Your task to perform on an android device: What's the weather? Image 0: 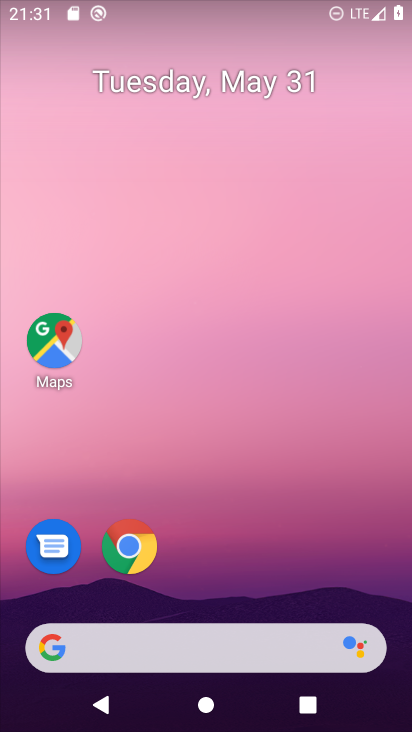
Step 0: drag from (0, 248) to (393, 262)
Your task to perform on an android device: What's the weather? Image 1: 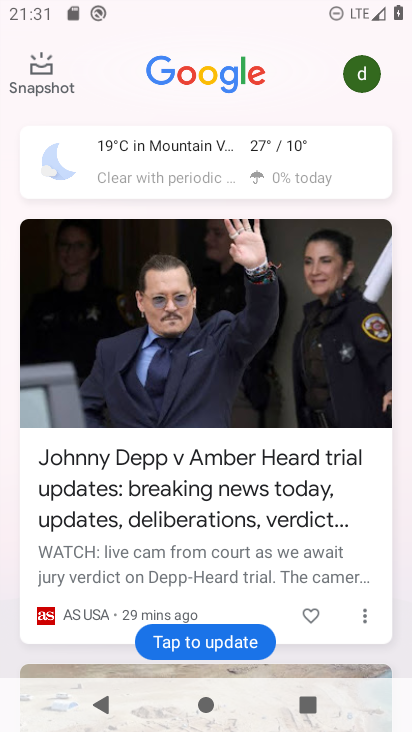
Step 1: click (255, 146)
Your task to perform on an android device: What's the weather? Image 2: 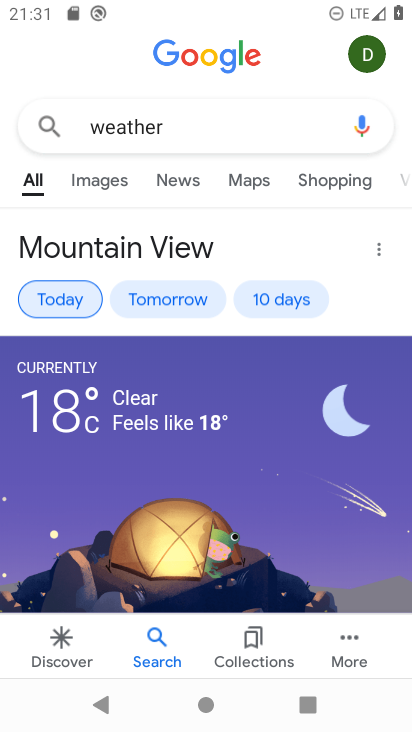
Step 2: click (62, 303)
Your task to perform on an android device: What's the weather? Image 3: 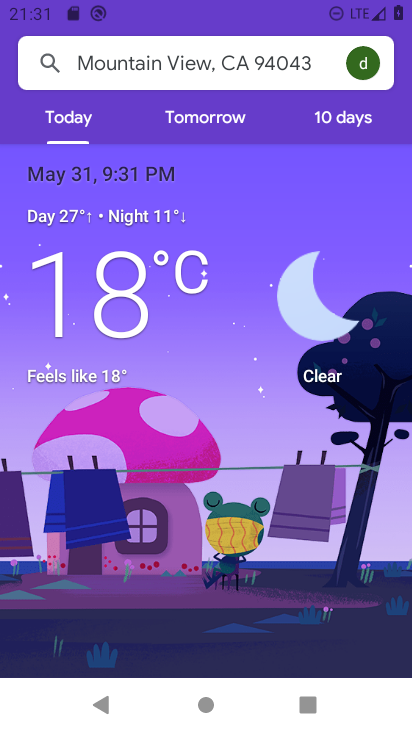
Step 3: task complete